Your task to perform on an android device: set default search engine in the chrome app Image 0: 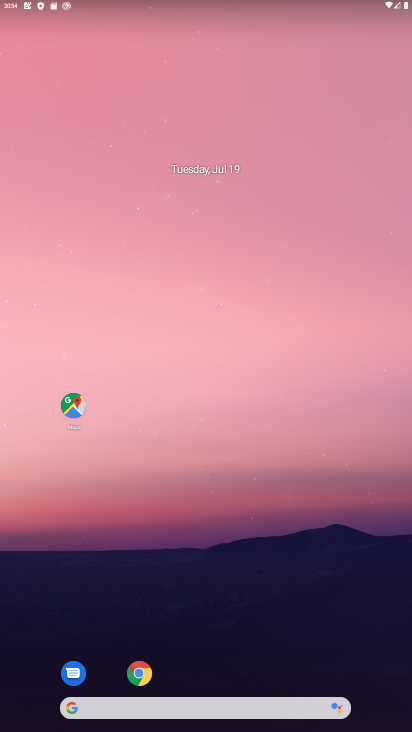
Step 0: click (131, 667)
Your task to perform on an android device: set default search engine in the chrome app Image 1: 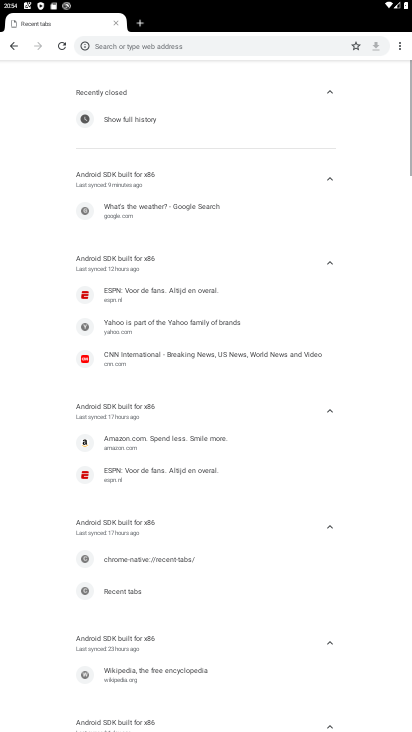
Step 1: click (402, 51)
Your task to perform on an android device: set default search engine in the chrome app Image 2: 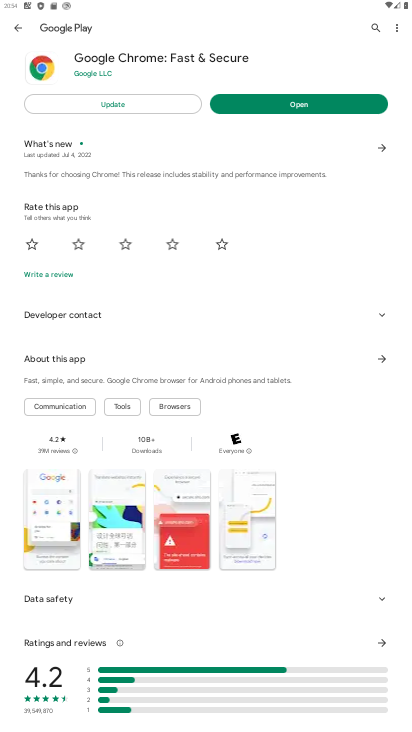
Step 2: press back button
Your task to perform on an android device: set default search engine in the chrome app Image 3: 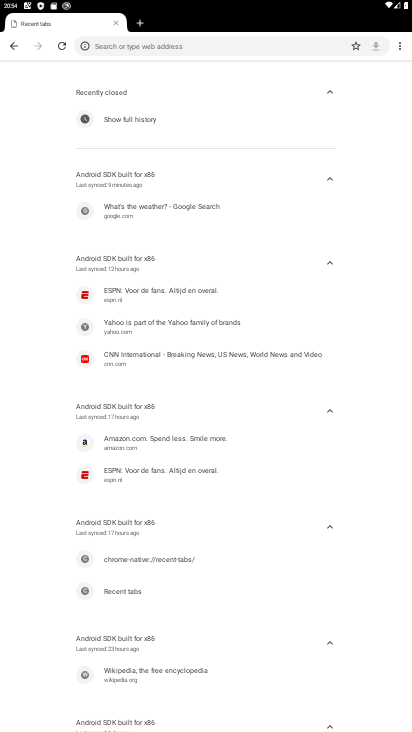
Step 3: click (397, 42)
Your task to perform on an android device: set default search engine in the chrome app Image 4: 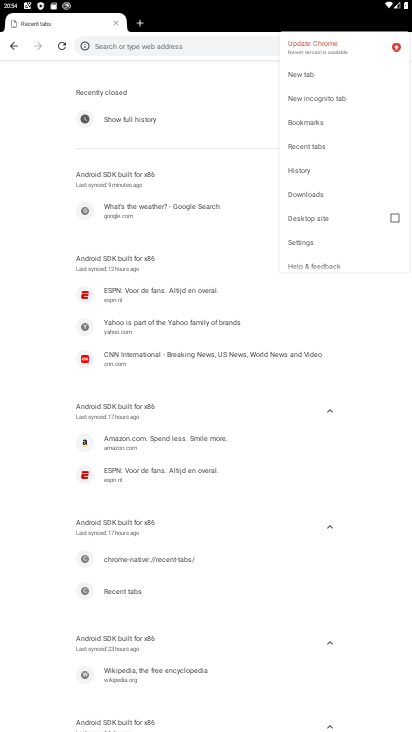
Step 4: click (308, 242)
Your task to perform on an android device: set default search engine in the chrome app Image 5: 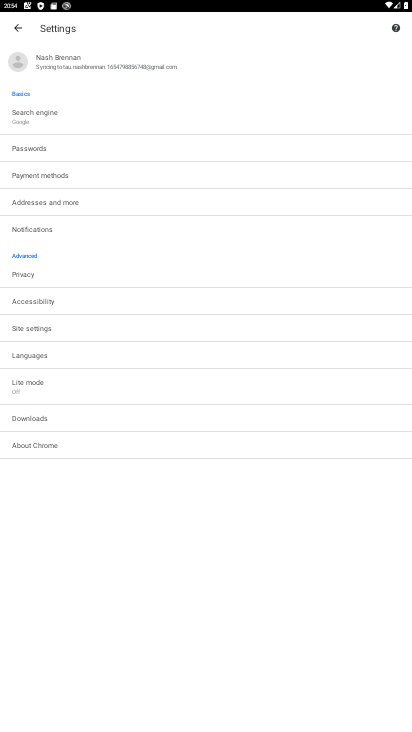
Step 5: click (64, 120)
Your task to perform on an android device: set default search engine in the chrome app Image 6: 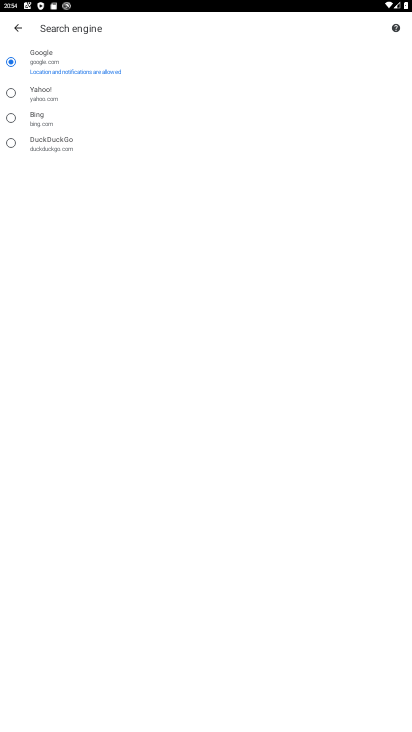
Step 6: task complete